Your task to perform on an android device: turn on data saver in the chrome app Image 0: 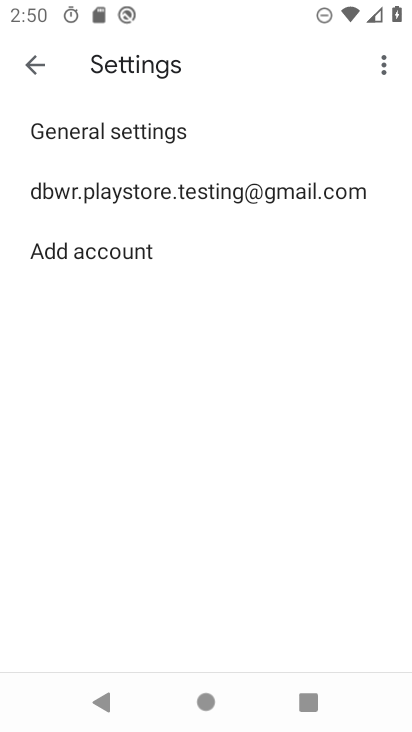
Step 0: press home button
Your task to perform on an android device: turn on data saver in the chrome app Image 1: 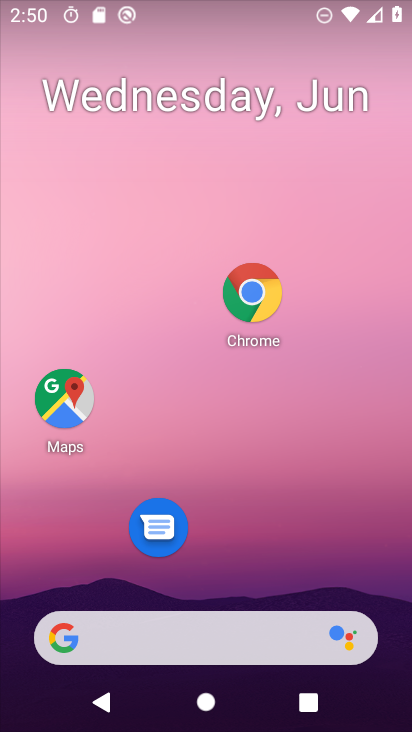
Step 1: drag from (200, 642) to (160, 279)
Your task to perform on an android device: turn on data saver in the chrome app Image 2: 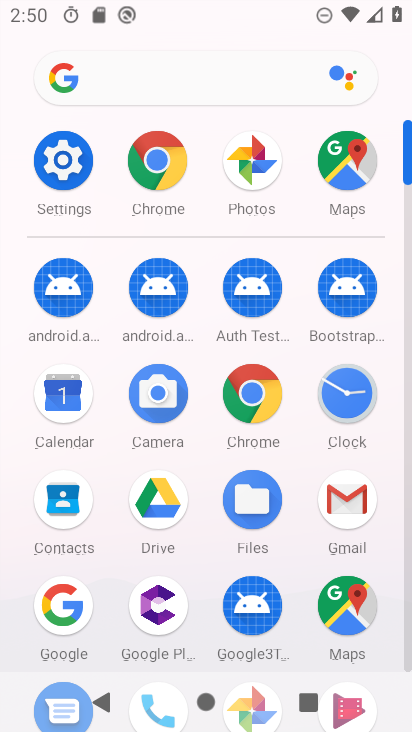
Step 2: click (152, 194)
Your task to perform on an android device: turn on data saver in the chrome app Image 3: 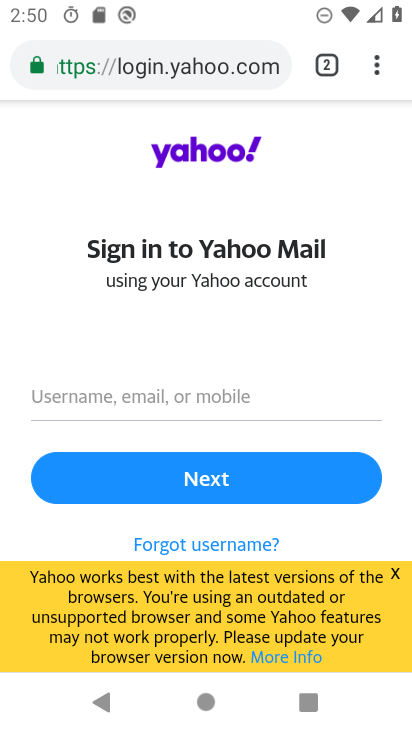
Step 3: click (381, 57)
Your task to perform on an android device: turn on data saver in the chrome app Image 4: 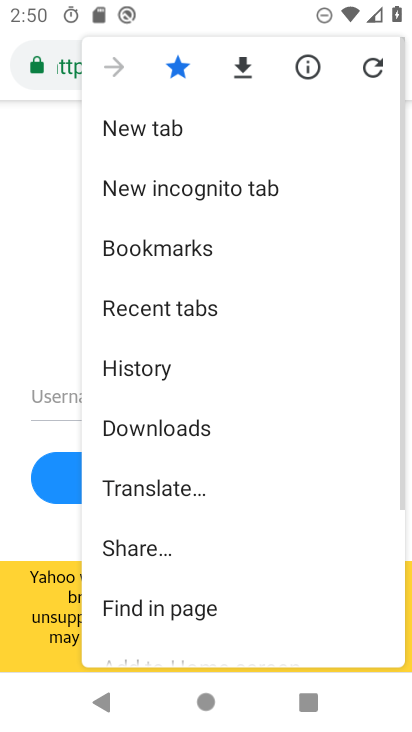
Step 4: drag from (164, 529) to (141, 270)
Your task to perform on an android device: turn on data saver in the chrome app Image 5: 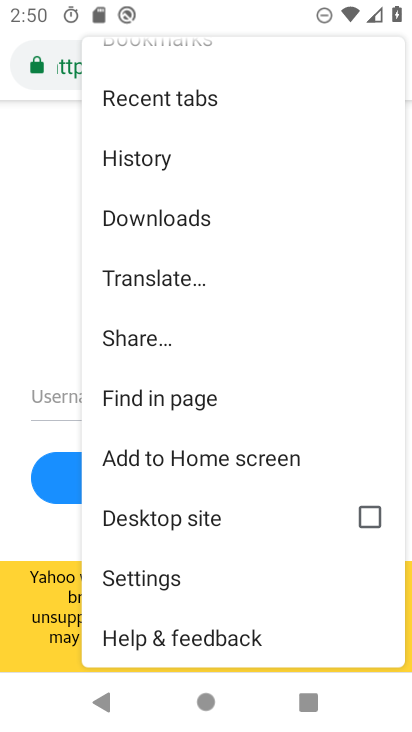
Step 5: click (122, 577)
Your task to perform on an android device: turn on data saver in the chrome app Image 6: 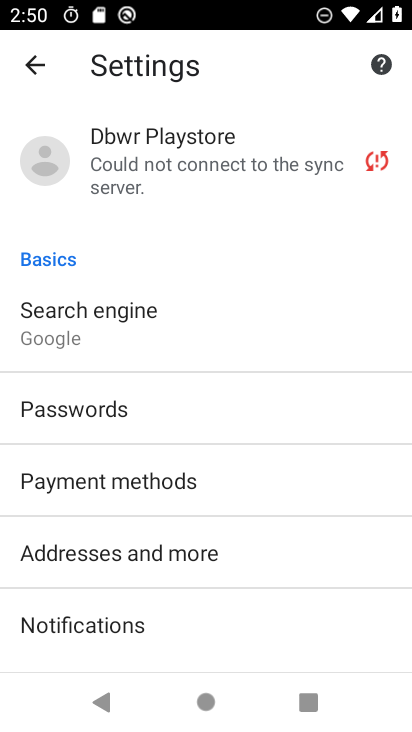
Step 6: drag from (116, 555) to (148, 327)
Your task to perform on an android device: turn on data saver in the chrome app Image 7: 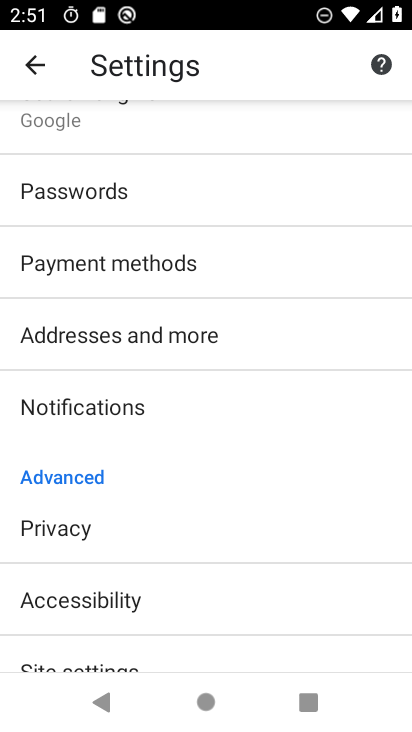
Step 7: drag from (67, 467) to (134, 98)
Your task to perform on an android device: turn on data saver in the chrome app Image 8: 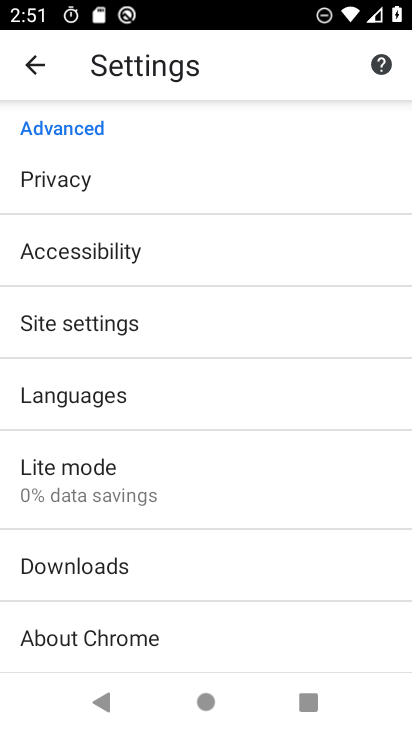
Step 8: click (122, 482)
Your task to perform on an android device: turn on data saver in the chrome app Image 9: 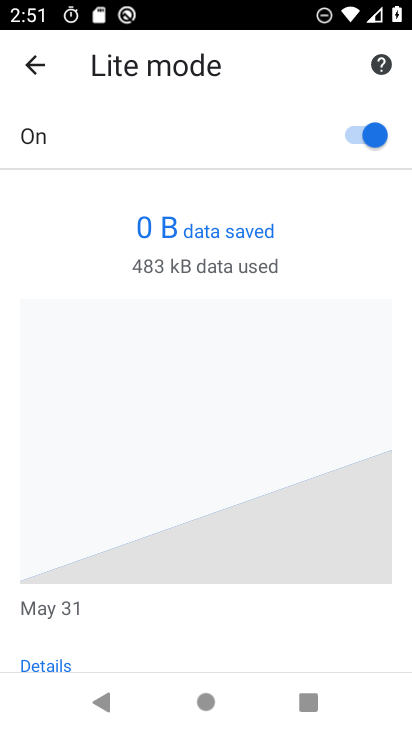
Step 9: task complete